Your task to perform on an android device: empty trash in the gmail app Image 0: 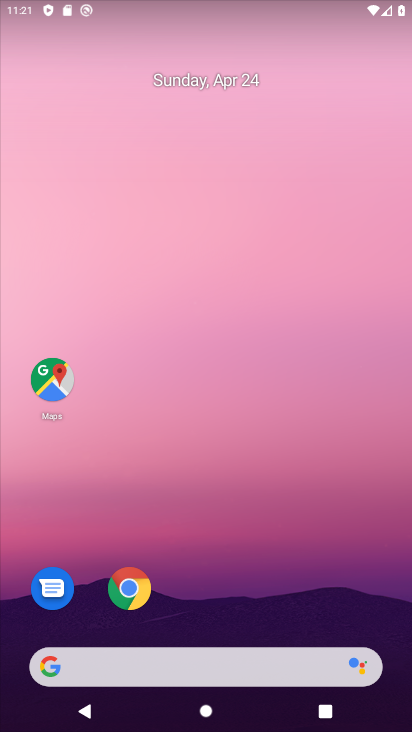
Step 0: drag from (189, 637) to (313, 13)
Your task to perform on an android device: empty trash in the gmail app Image 1: 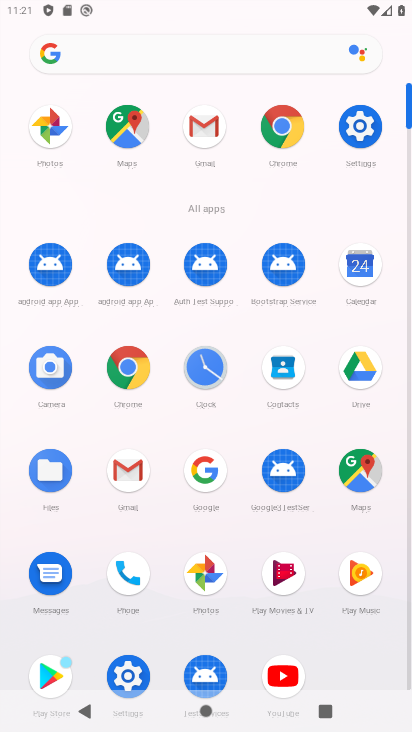
Step 1: click (128, 481)
Your task to perform on an android device: empty trash in the gmail app Image 2: 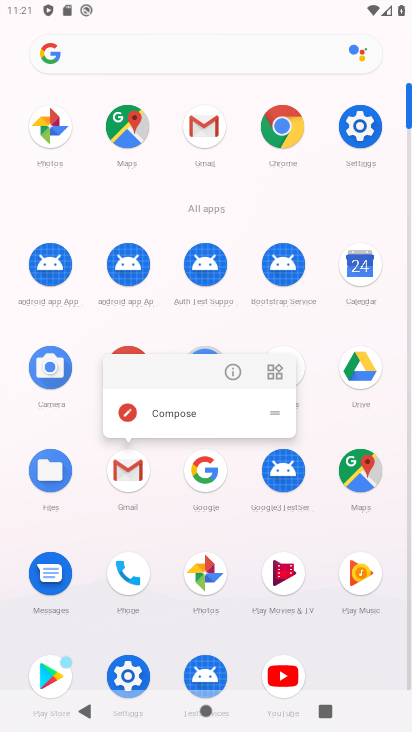
Step 2: click (138, 476)
Your task to perform on an android device: empty trash in the gmail app Image 3: 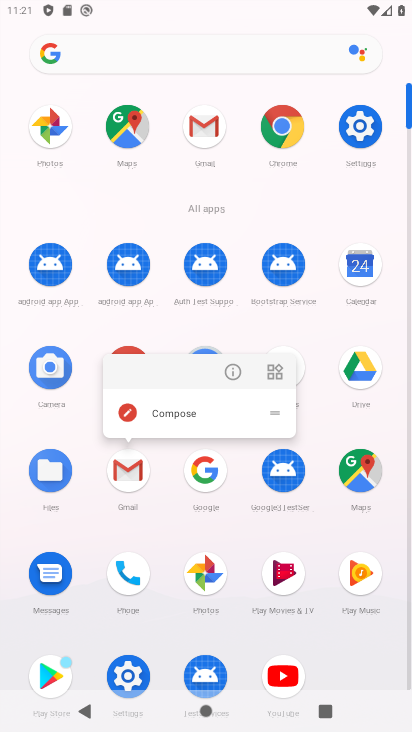
Step 3: click (134, 462)
Your task to perform on an android device: empty trash in the gmail app Image 4: 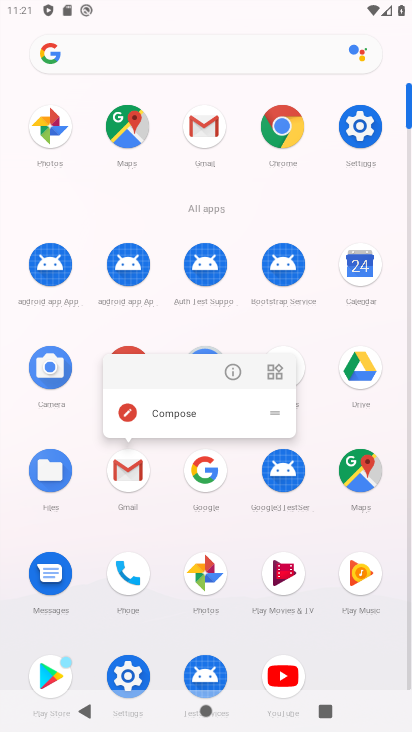
Step 4: click (137, 473)
Your task to perform on an android device: empty trash in the gmail app Image 5: 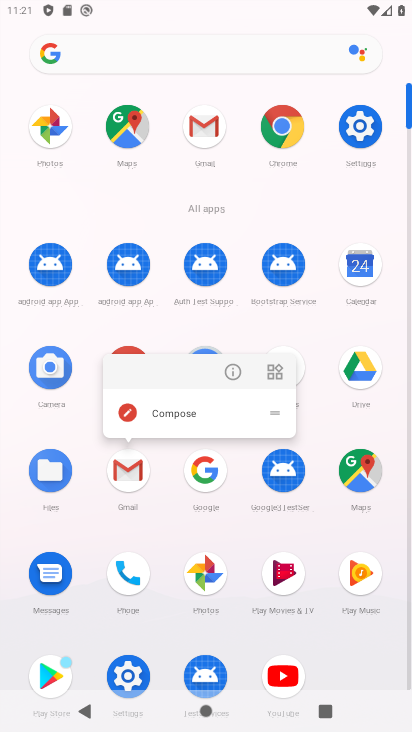
Step 5: click (137, 473)
Your task to perform on an android device: empty trash in the gmail app Image 6: 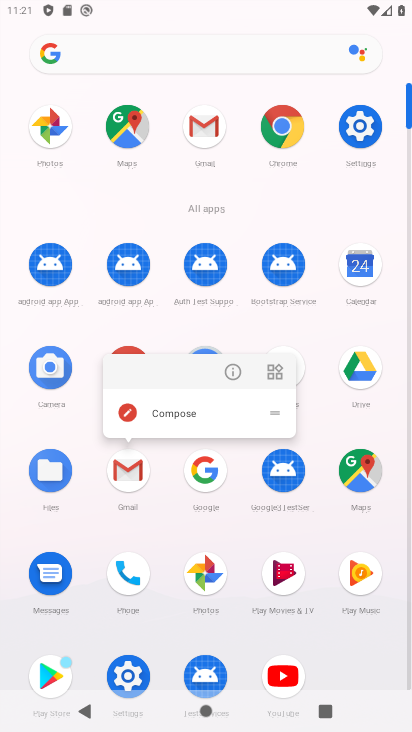
Step 6: click (133, 474)
Your task to perform on an android device: empty trash in the gmail app Image 7: 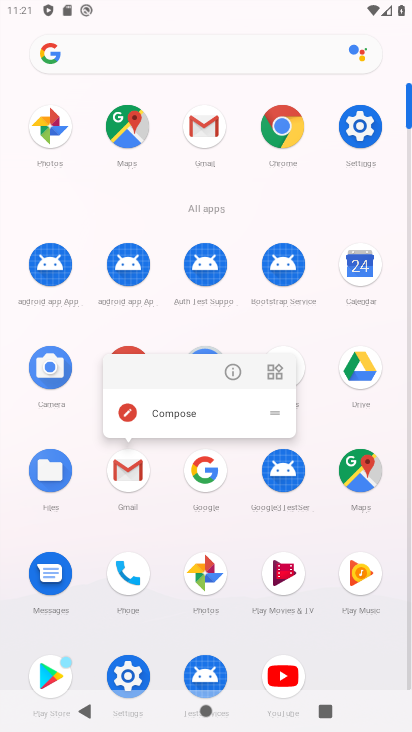
Step 7: click (131, 481)
Your task to perform on an android device: empty trash in the gmail app Image 8: 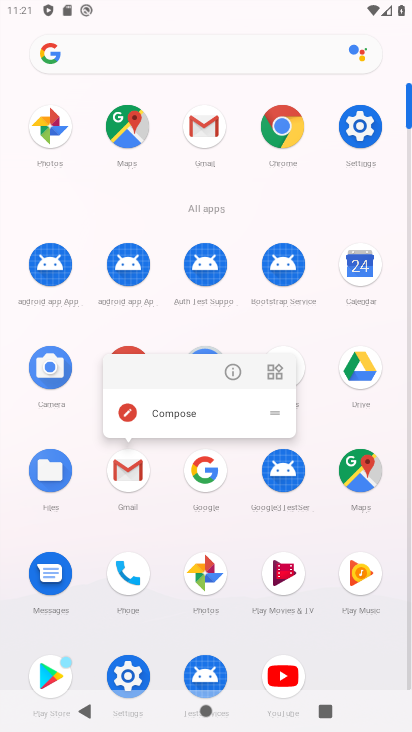
Step 8: click (117, 468)
Your task to perform on an android device: empty trash in the gmail app Image 9: 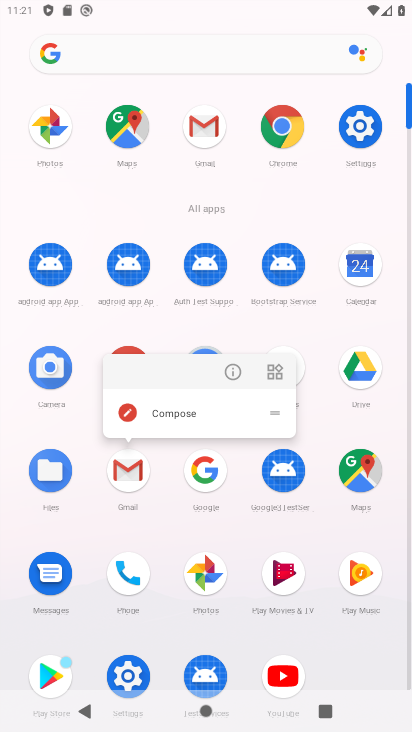
Step 9: click (132, 477)
Your task to perform on an android device: empty trash in the gmail app Image 10: 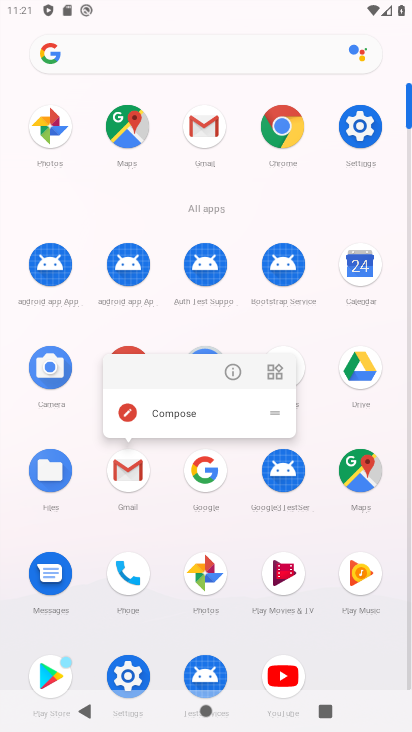
Step 10: click (143, 469)
Your task to perform on an android device: empty trash in the gmail app Image 11: 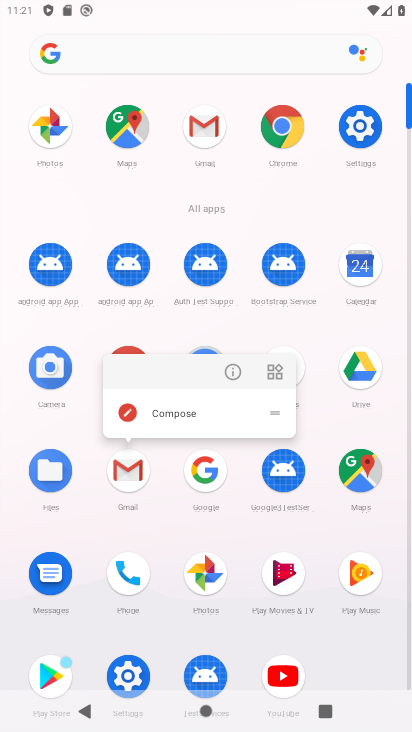
Step 11: click (139, 463)
Your task to perform on an android device: empty trash in the gmail app Image 12: 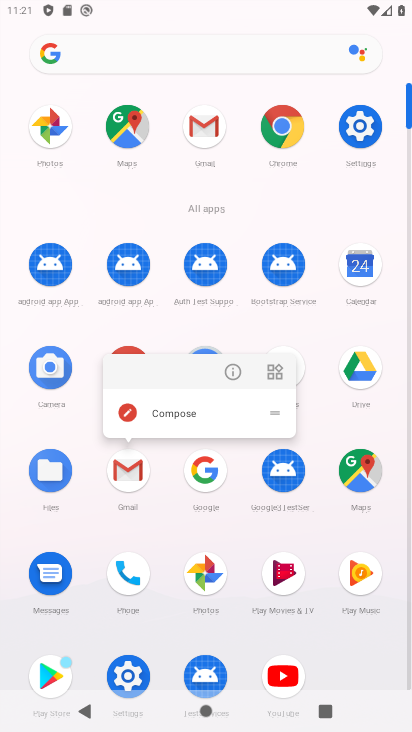
Step 12: click (131, 480)
Your task to perform on an android device: empty trash in the gmail app Image 13: 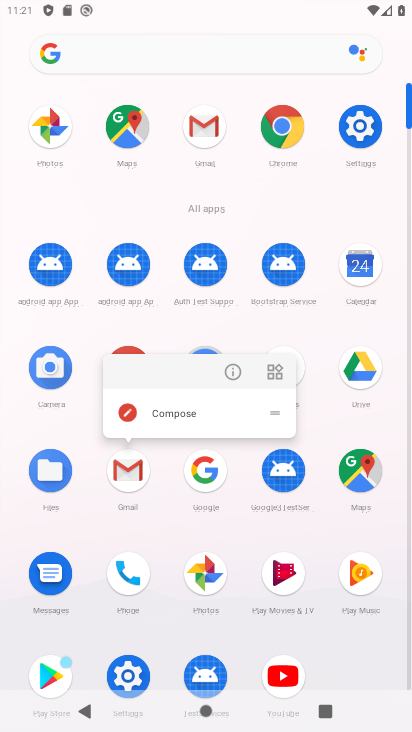
Step 13: click (130, 476)
Your task to perform on an android device: empty trash in the gmail app Image 14: 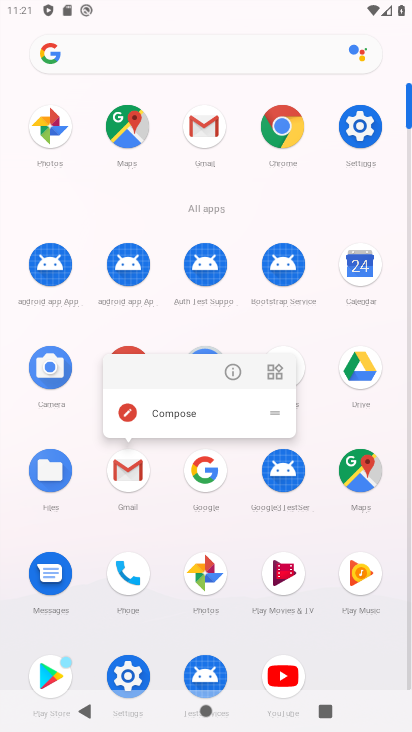
Step 14: click (121, 479)
Your task to perform on an android device: empty trash in the gmail app Image 15: 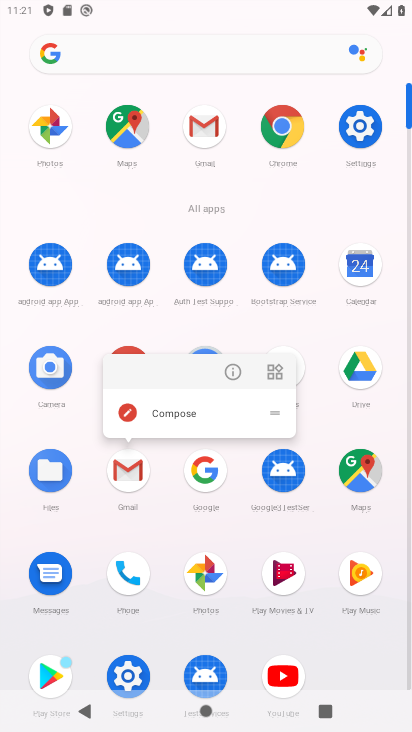
Step 15: click (136, 468)
Your task to perform on an android device: empty trash in the gmail app Image 16: 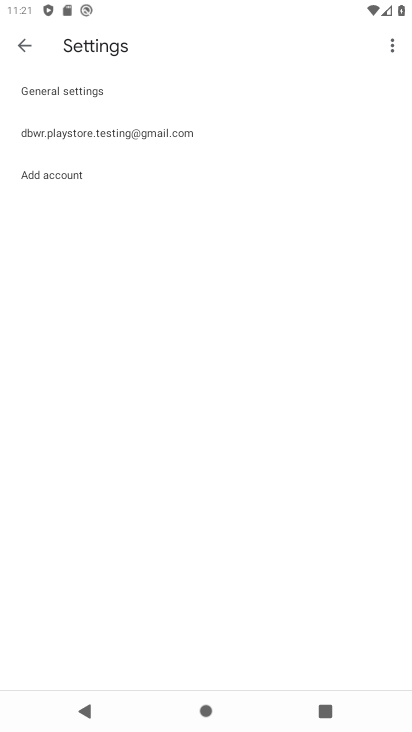
Step 16: press back button
Your task to perform on an android device: empty trash in the gmail app Image 17: 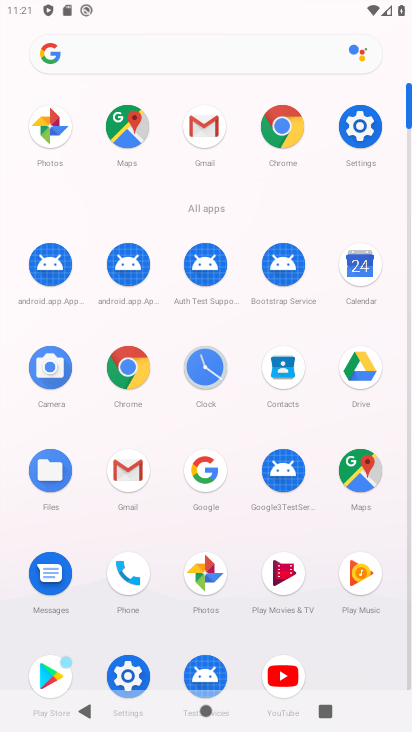
Step 17: click (127, 476)
Your task to perform on an android device: empty trash in the gmail app Image 18: 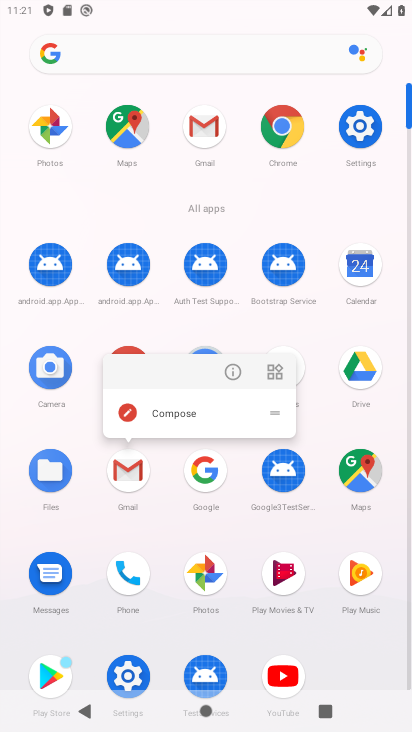
Step 18: click (132, 474)
Your task to perform on an android device: empty trash in the gmail app Image 19: 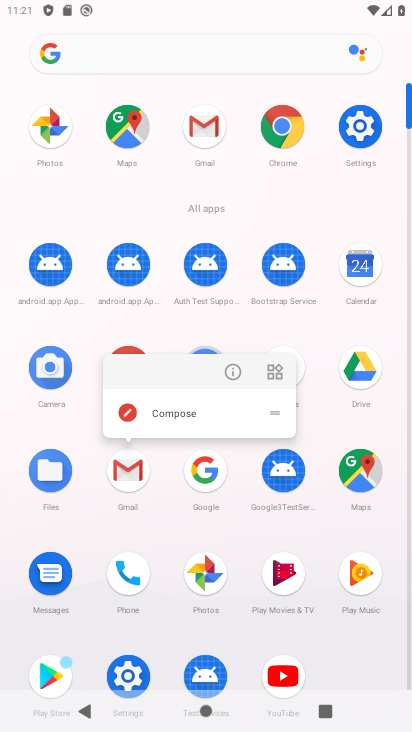
Step 19: click (129, 455)
Your task to perform on an android device: empty trash in the gmail app Image 20: 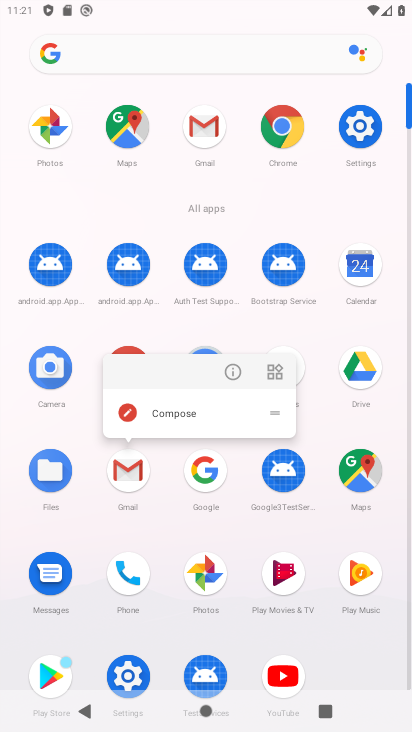
Step 20: click (187, 127)
Your task to perform on an android device: empty trash in the gmail app Image 21: 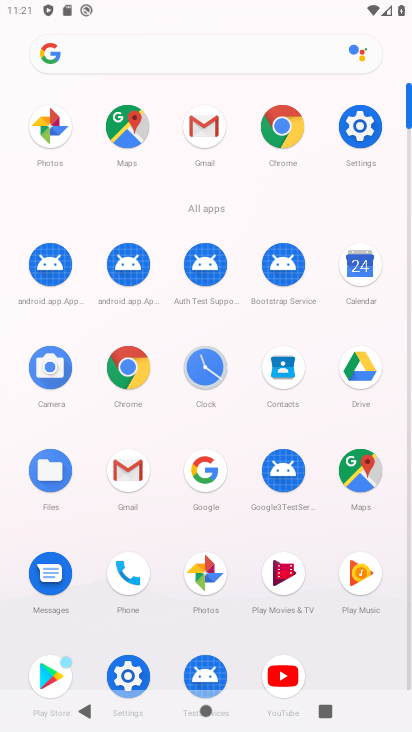
Step 21: click (202, 124)
Your task to perform on an android device: empty trash in the gmail app Image 22: 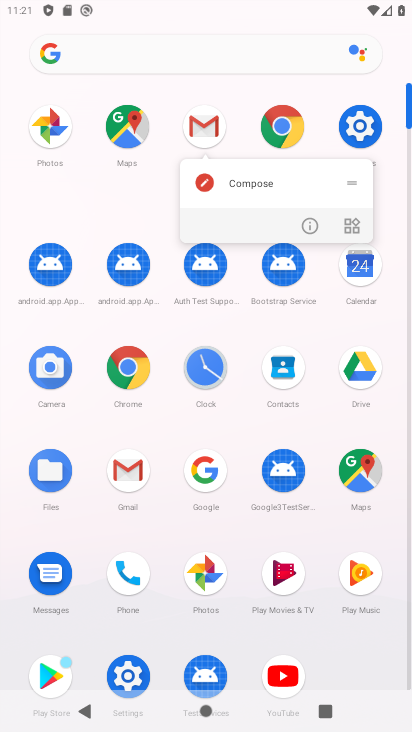
Step 22: click (211, 115)
Your task to perform on an android device: empty trash in the gmail app Image 23: 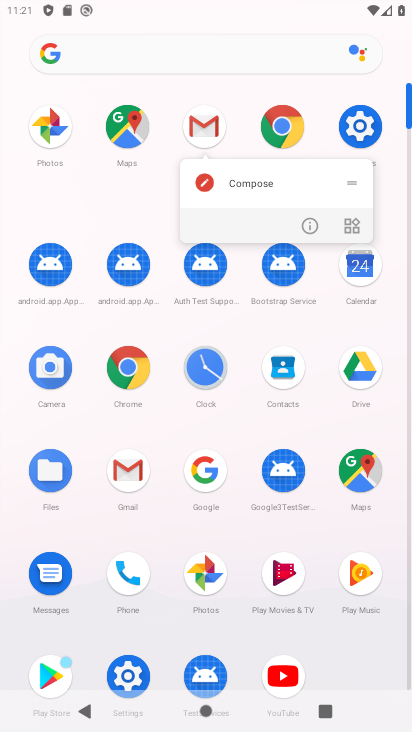
Step 23: click (205, 141)
Your task to perform on an android device: empty trash in the gmail app Image 24: 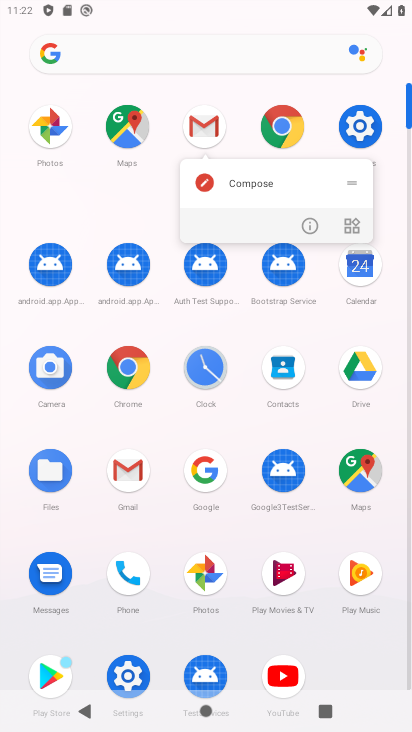
Step 24: click (208, 135)
Your task to perform on an android device: empty trash in the gmail app Image 25: 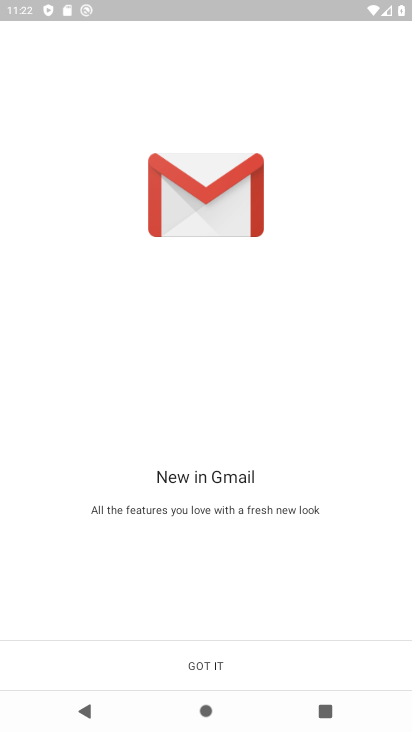
Step 25: click (254, 659)
Your task to perform on an android device: empty trash in the gmail app Image 26: 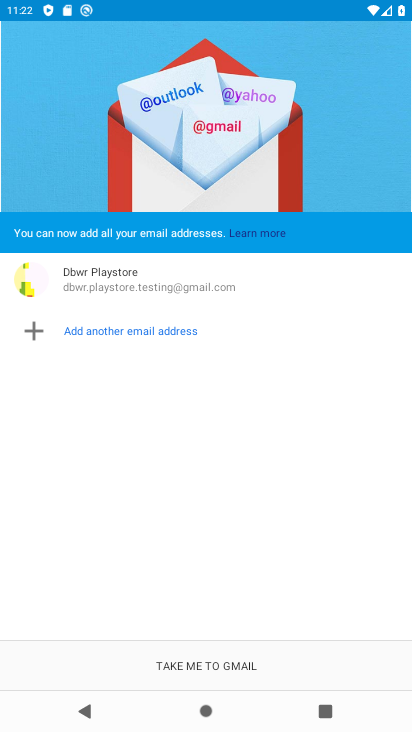
Step 26: click (255, 660)
Your task to perform on an android device: empty trash in the gmail app Image 27: 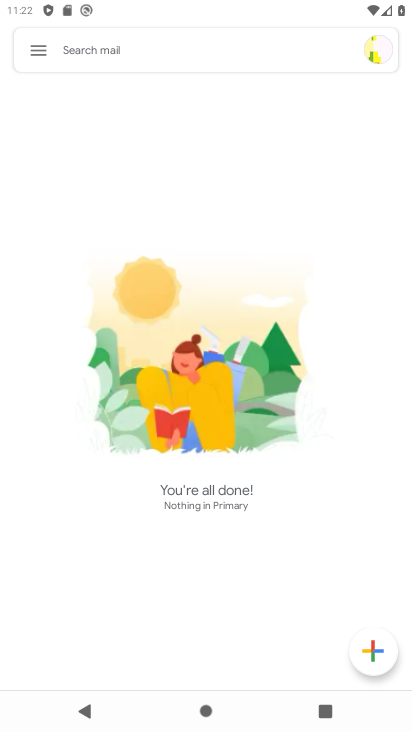
Step 27: click (32, 37)
Your task to perform on an android device: empty trash in the gmail app Image 28: 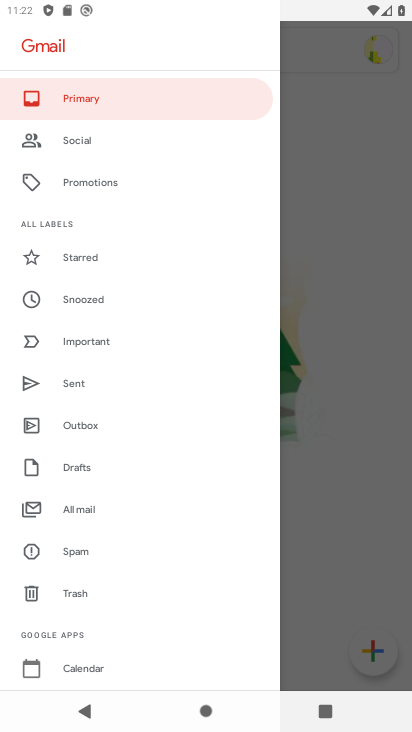
Step 28: click (106, 594)
Your task to perform on an android device: empty trash in the gmail app Image 29: 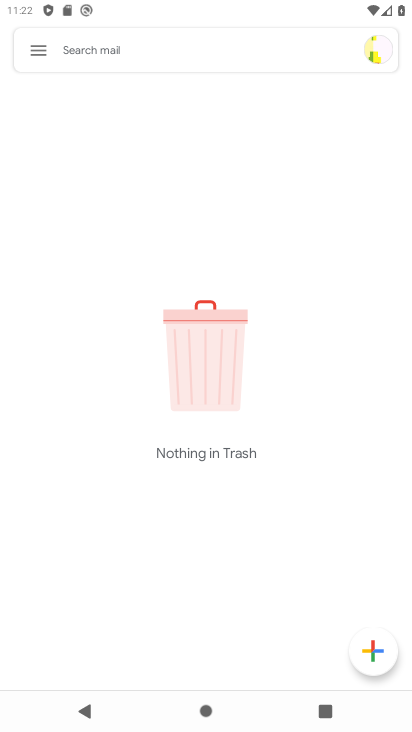
Step 29: task complete